Your task to perform on an android device: Go to Google Image 0: 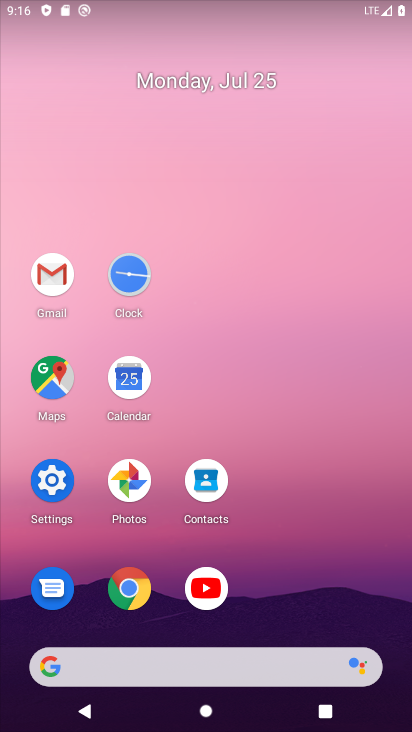
Step 0: click (43, 667)
Your task to perform on an android device: Go to Google Image 1: 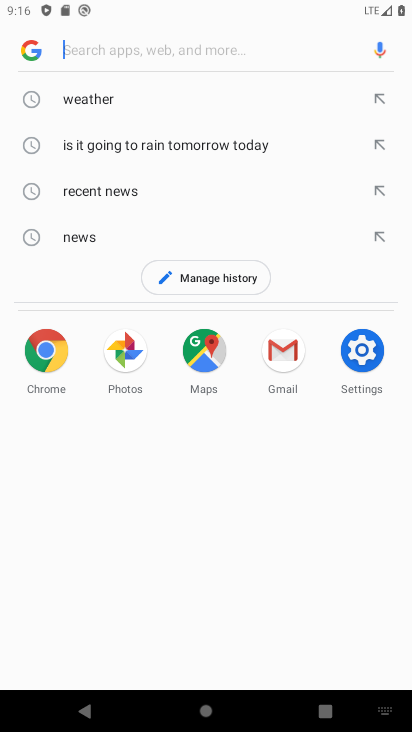
Step 1: click (26, 46)
Your task to perform on an android device: Go to Google Image 2: 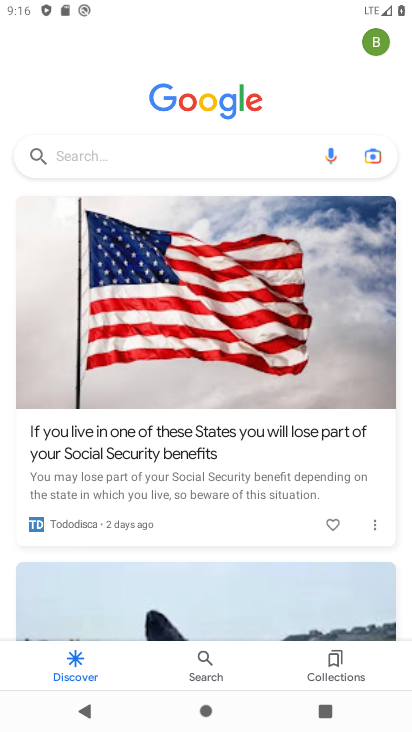
Step 2: task complete